Your task to perform on an android device: check the backup settings in the google photos Image 0: 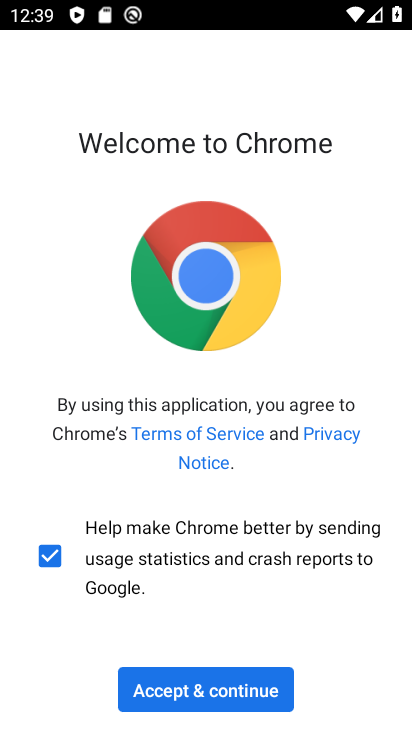
Step 0: press home button
Your task to perform on an android device: check the backup settings in the google photos Image 1: 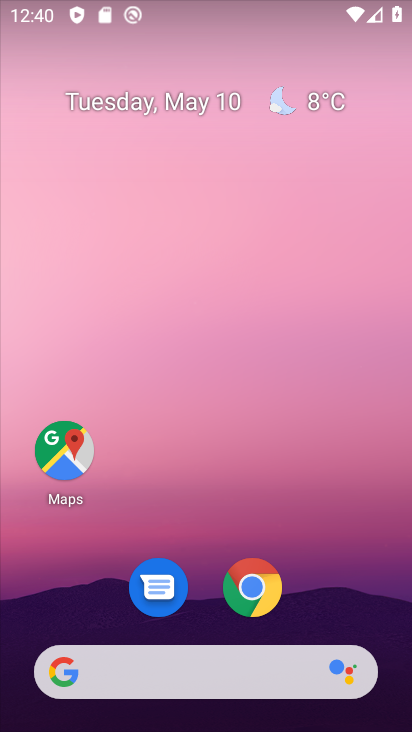
Step 1: drag from (239, 470) to (191, 6)
Your task to perform on an android device: check the backup settings in the google photos Image 2: 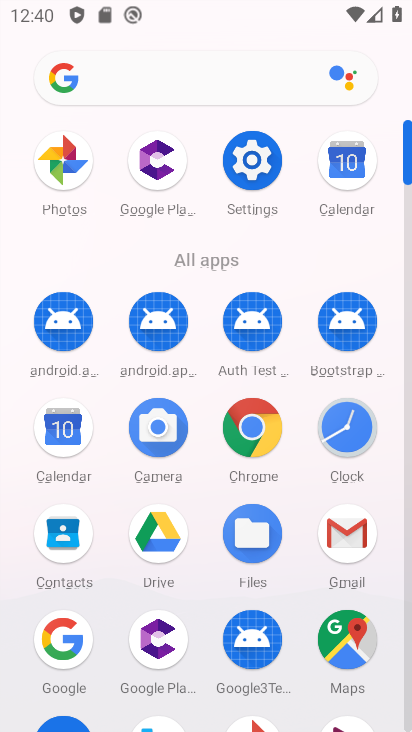
Step 2: click (66, 152)
Your task to perform on an android device: check the backup settings in the google photos Image 3: 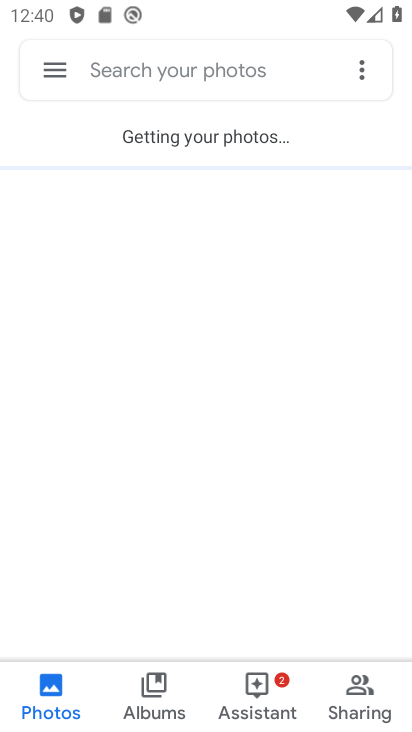
Step 3: click (55, 76)
Your task to perform on an android device: check the backup settings in the google photos Image 4: 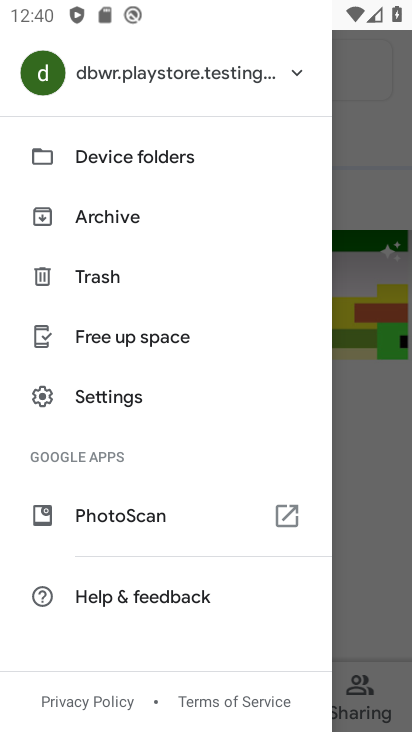
Step 4: click (101, 398)
Your task to perform on an android device: check the backup settings in the google photos Image 5: 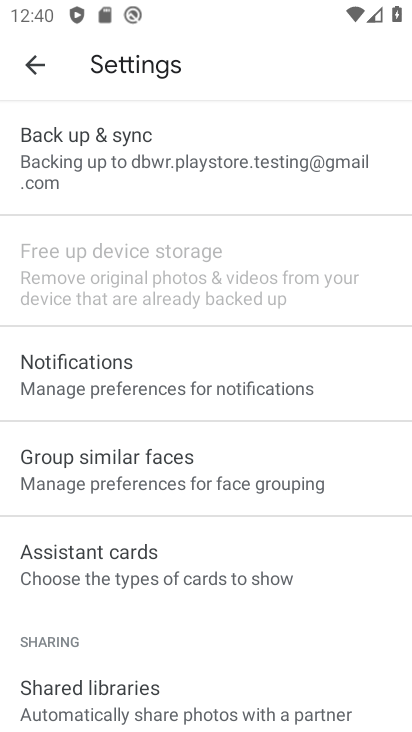
Step 5: click (149, 170)
Your task to perform on an android device: check the backup settings in the google photos Image 6: 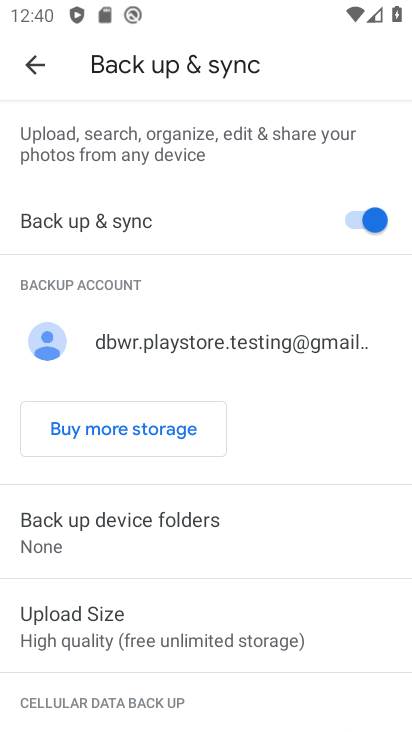
Step 6: task complete